Your task to perform on an android device: toggle improve location accuracy Image 0: 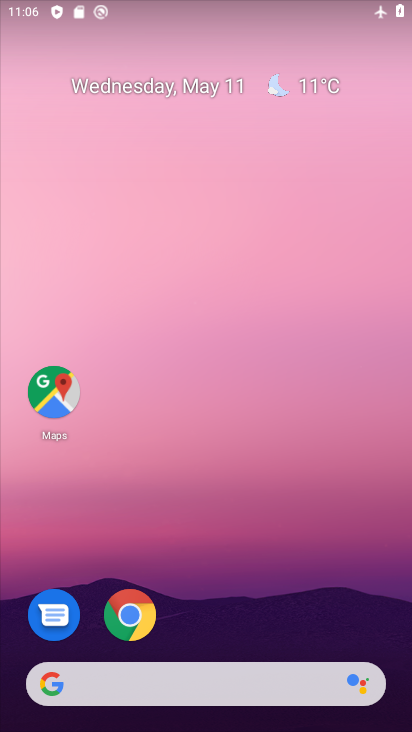
Step 0: drag from (243, 635) to (322, 15)
Your task to perform on an android device: toggle improve location accuracy Image 1: 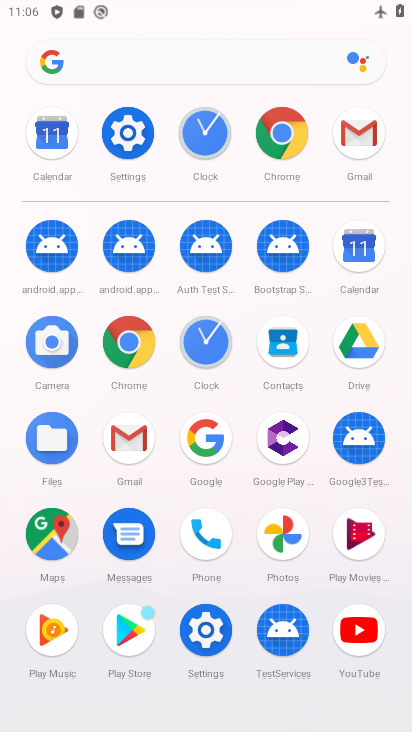
Step 1: click (128, 137)
Your task to perform on an android device: toggle improve location accuracy Image 2: 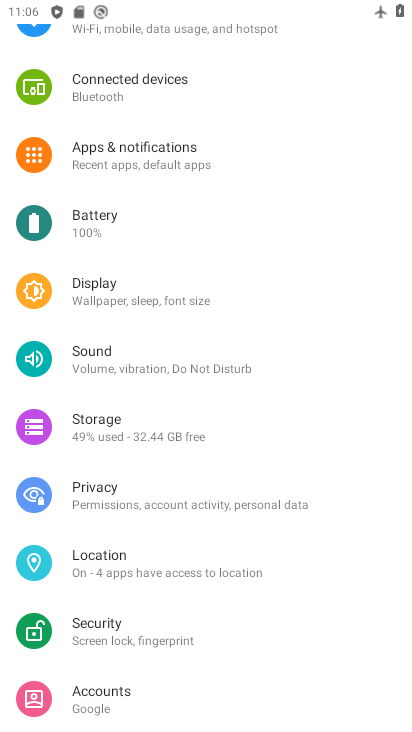
Step 2: click (145, 571)
Your task to perform on an android device: toggle improve location accuracy Image 3: 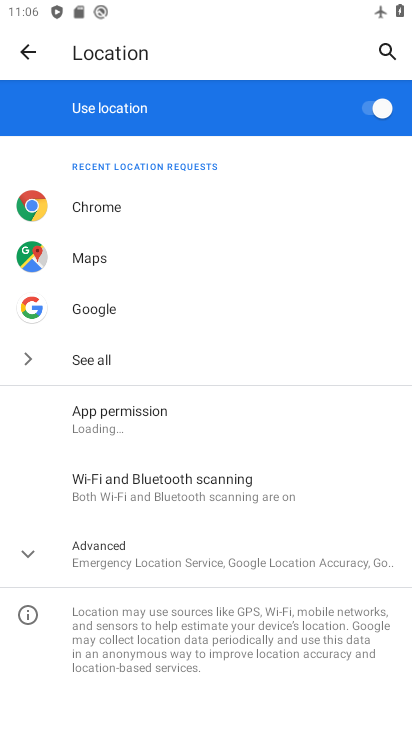
Step 3: click (151, 567)
Your task to perform on an android device: toggle improve location accuracy Image 4: 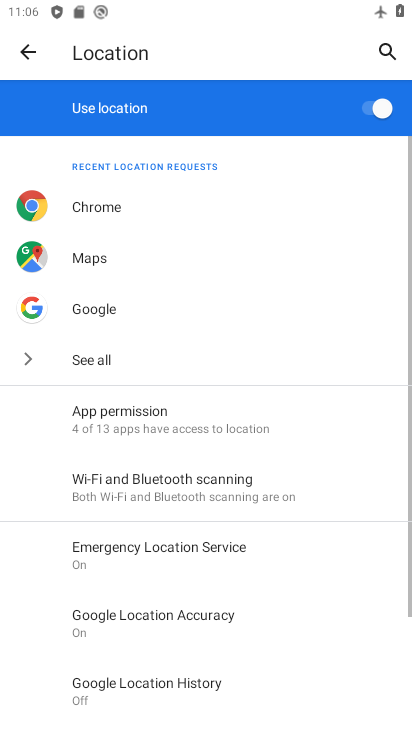
Step 4: drag from (338, 661) to (340, 373)
Your task to perform on an android device: toggle improve location accuracy Image 5: 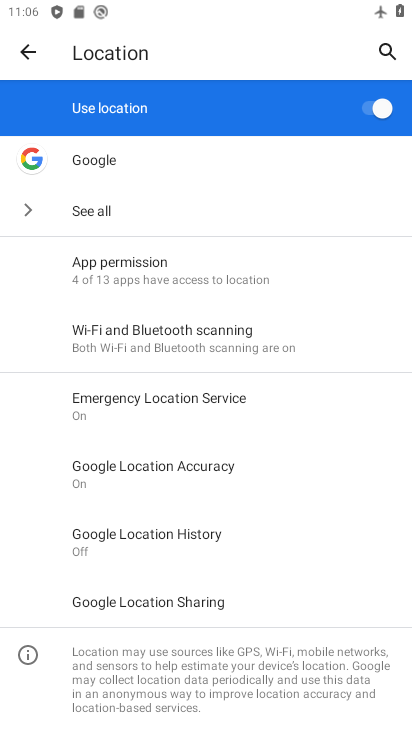
Step 5: click (168, 459)
Your task to perform on an android device: toggle improve location accuracy Image 6: 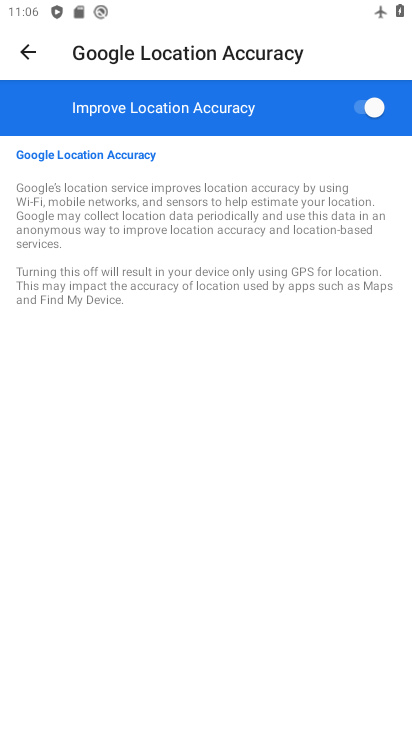
Step 6: click (363, 107)
Your task to perform on an android device: toggle improve location accuracy Image 7: 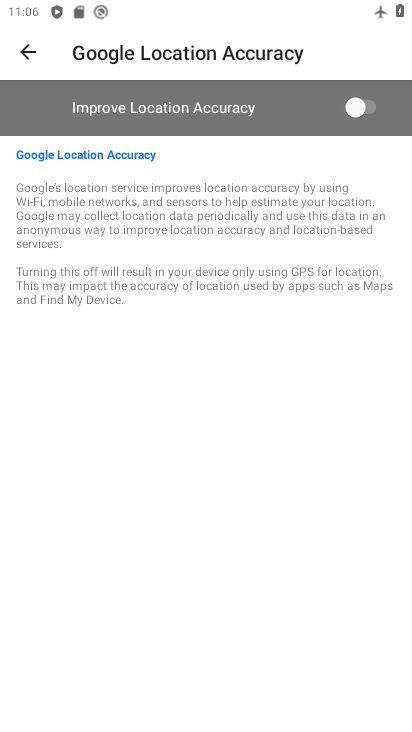
Step 7: task complete